Your task to perform on an android device: Search for sushi restaurants on Maps Image 0: 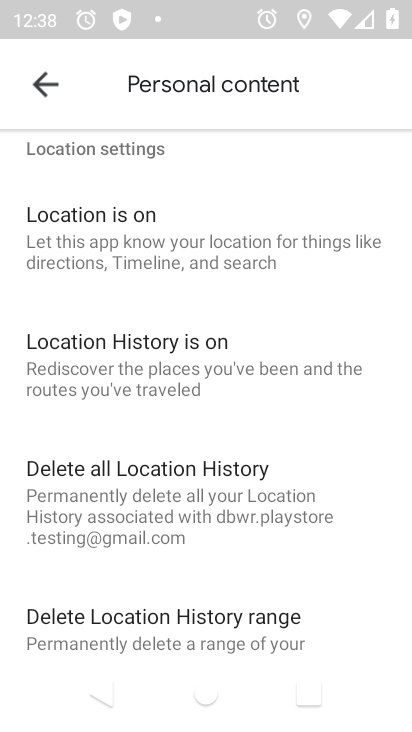
Step 0: press home button
Your task to perform on an android device: Search for sushi restaurants on Maps Image 1: 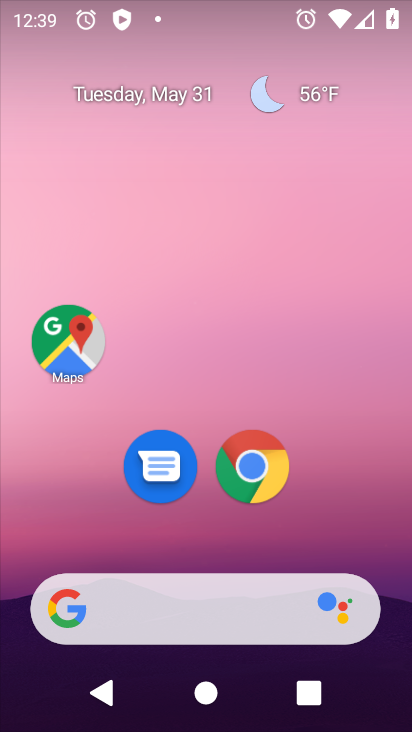
Step 1: click (73, 333)
Your task to perform on an android device: Search for sushi restaurants on Maps Image 2: 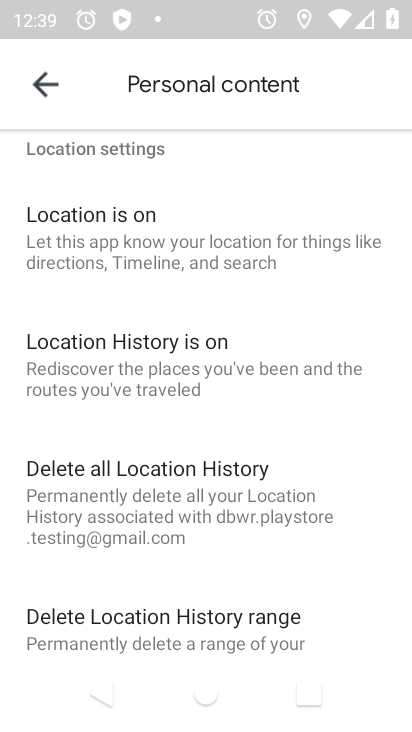
Step 2: click (42, 98)
Your task to perform on an android device: Search for sushi restaurants on Maps Image 3: 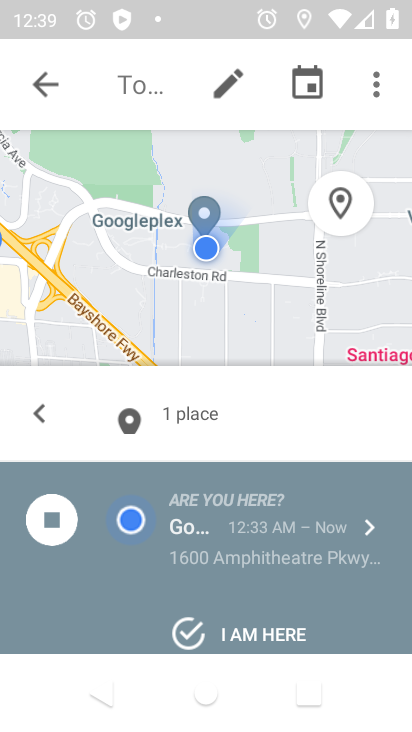
Step 3: click (44, 86)
Your task to perform on an android device: Search for sushi restaurants on Maps Image 4: 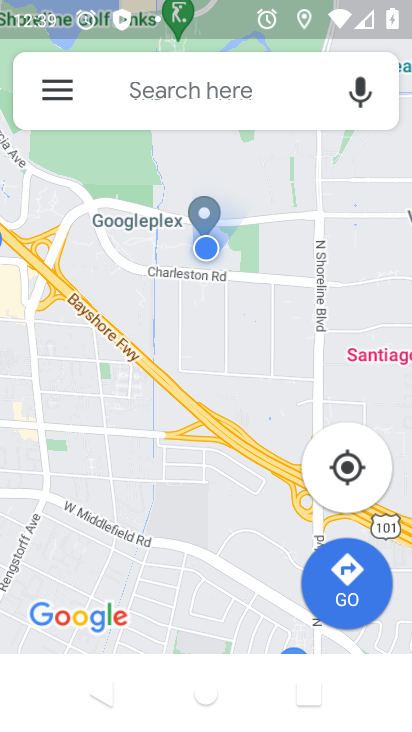
Step 4: click (170, 89)
Your task to perform on an android device: Search for sushi restaurants on Maps Image 5: 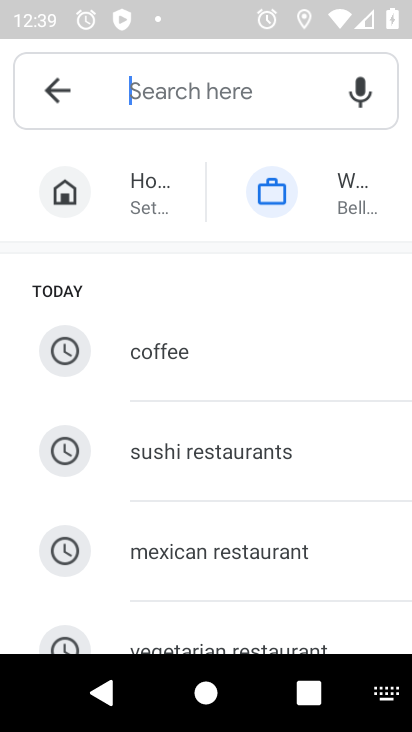
Step 5: click (252, 461)
Your task to perform on an android device: Search for sushi restaurants on Maps Image 6: 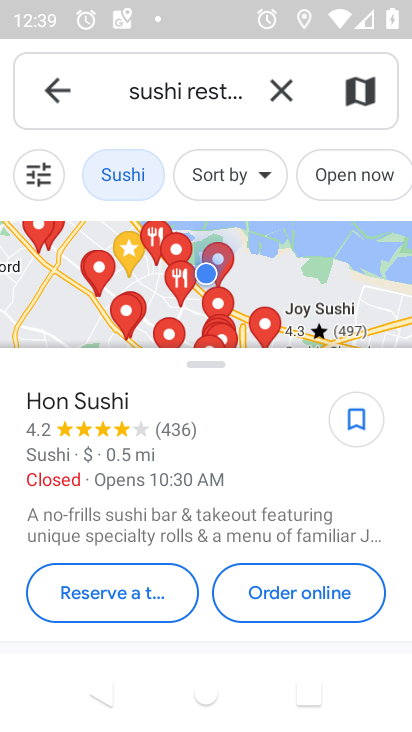
Step 6: task complete